Your task to perform on an android device: turn on sleep mode Image 0: 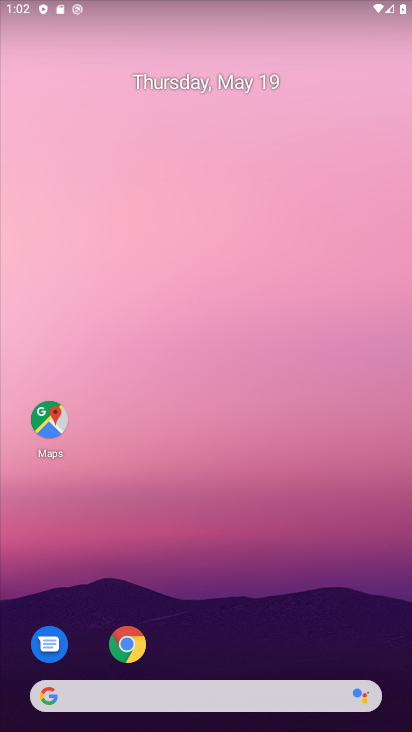
Step 0: drag from (291, 630) to (193, 142)
Your task to perform on an android device: turn on sleep mode Image 1: 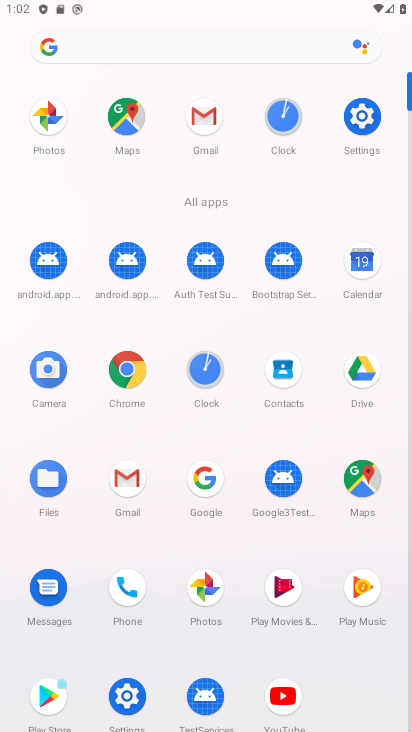
Step 1: click (347, 123)
Your task to perform on an android device: turn on sleep mode Image 2: 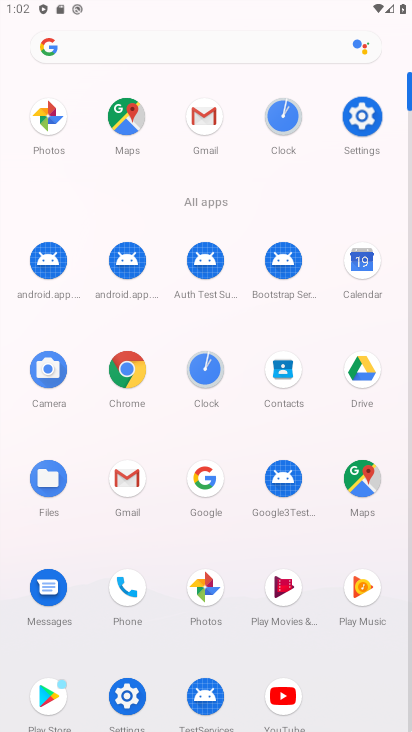
Step 2: click (353, 122)
Your task to perform on an android device: turn on sleep mode Image 3: 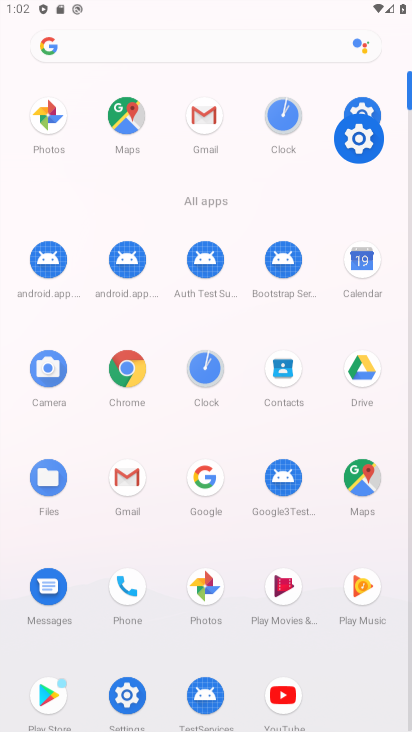
Step 3: click (356, 124)
Your task to perform on an android device: turn on sleep mode Image 4: 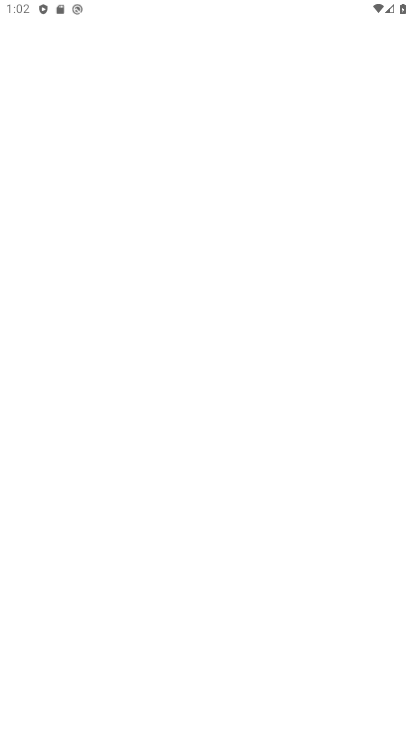
Step 4: click (355, 151)
Your task to perform on an android device: turn on sleep mode Image 5: 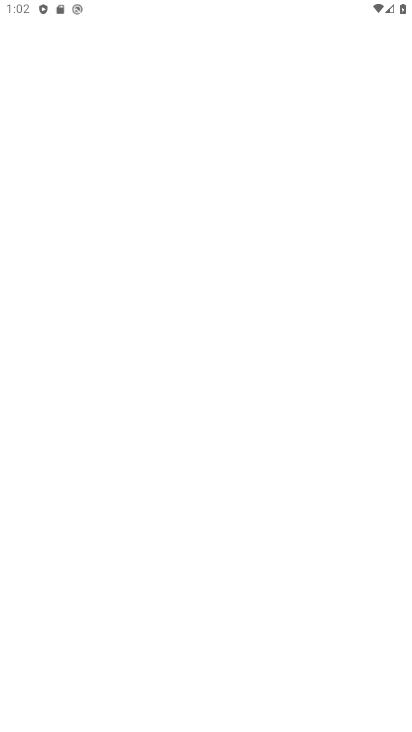
Step 5: click (370, 188)
Your task to perform on an android device: turn on sleep mode Image 6: 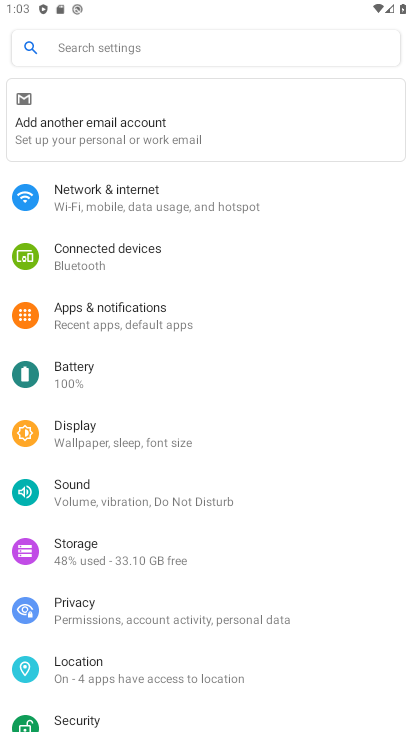
Step 6: drag from (140, 421) to (182, 15)
Your task to perform on an android device: turn on sleep mode Image 7: 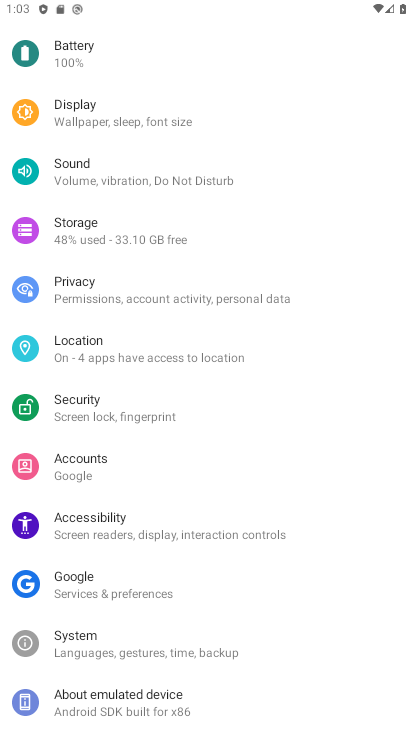
Step 7: drag from (176, 285) to (171, 40)
Your task to perform on an android device: turn on sleep mode Image 8: 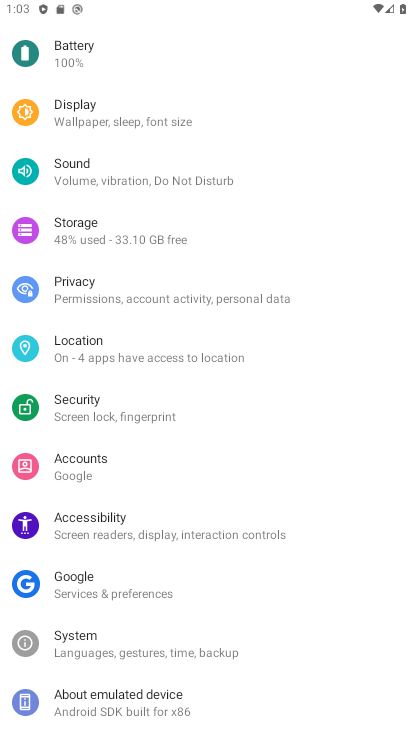
Step 8: drag from (94, 146) to (244, 541)
Your task to perform on an android device: turn on sleep mode Image 9: 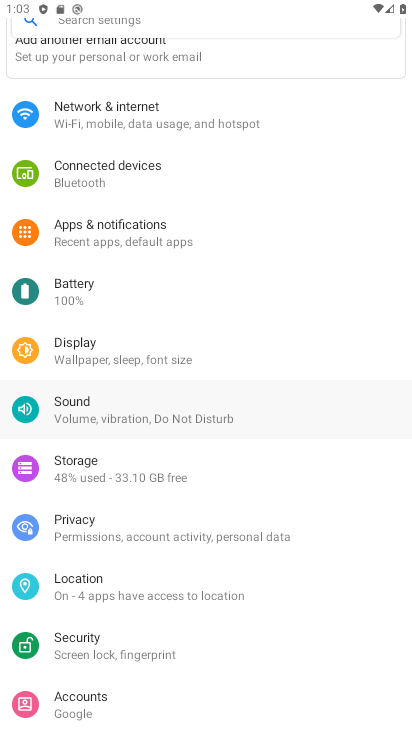
Step 9: drag from (159, 206) to (284, 506)
Your task to perform on an android device: turn on sleep mode Image 10: 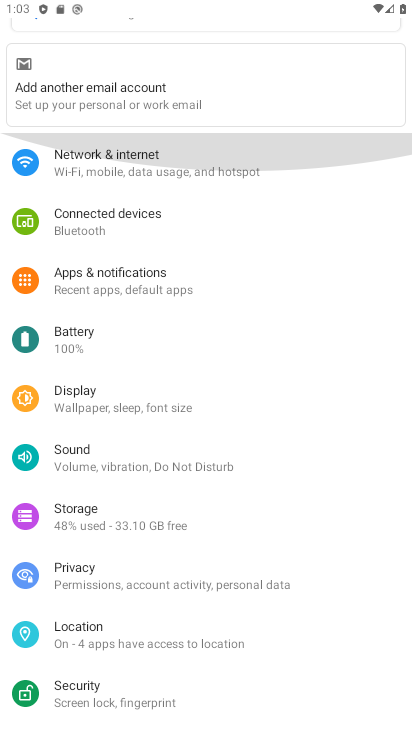
Step 10: drag from (242, 464) to (274, 572)
Your task to perform on an android device: turn on sleep mode Image 11: 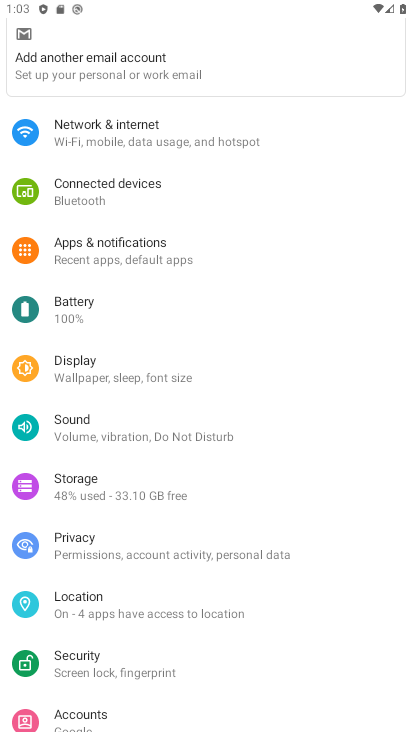
Step 11: drag from (134, 552) to (142, 126)
Your task to perform on an android device: turn on sleep mode Image 12: 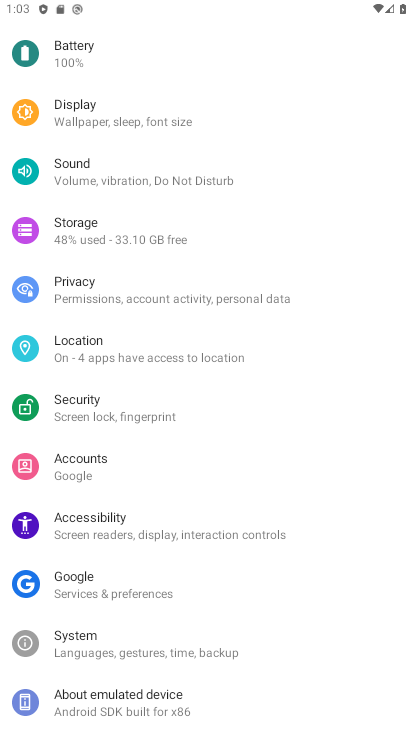
Step 12: drag from (64, 235) to (230, 618)
Your task to perform on an android device: turn on sleep mode Image 13: 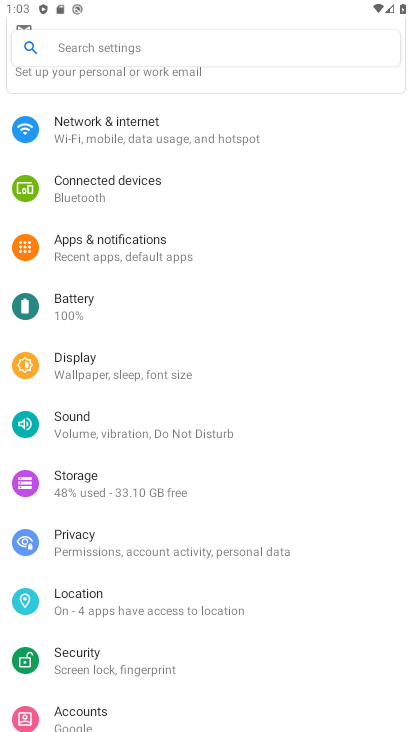
Step 13: drag from (100, 202) to (209, 576)
Your task to perform on an android device: turn on sleep mode Image 14: 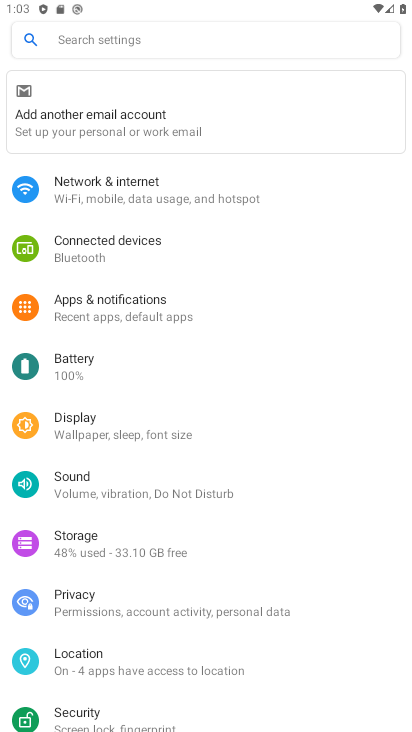
Step 14: click (81, 424)
Your task to perform on an android device: turn on sleep mode Image 15: 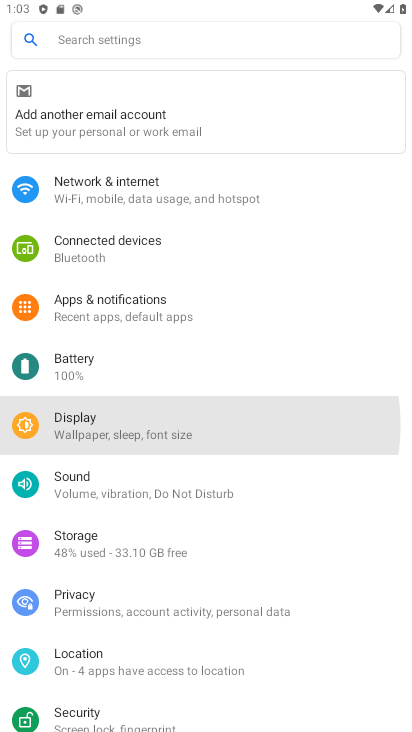
Step 15: task complete